Your task to perform on an android device: install app "PlayWell" Image 0: 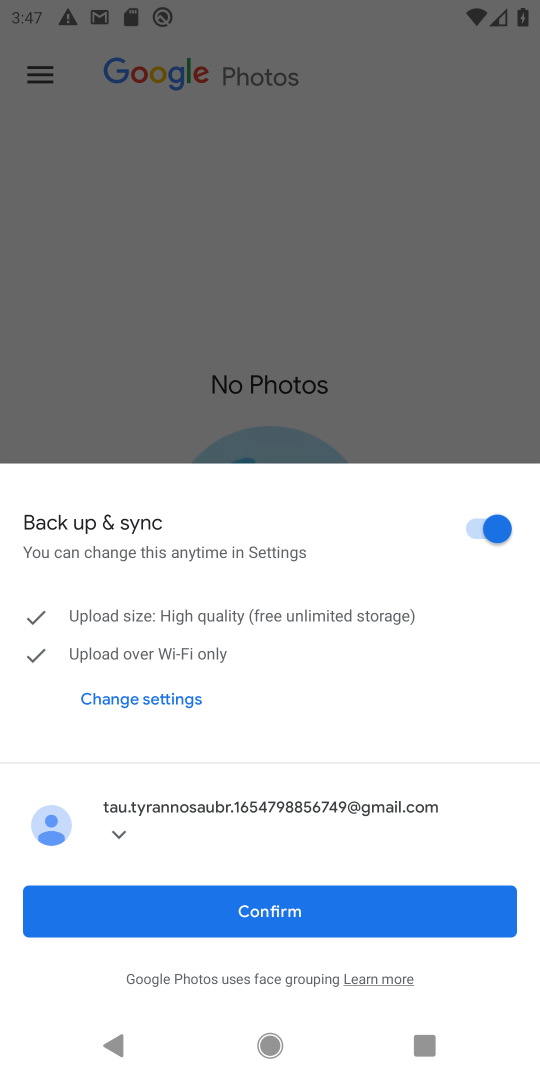
Step 0: press home button
Your task to perform on an android device: install app "PlayWell" Image 1: 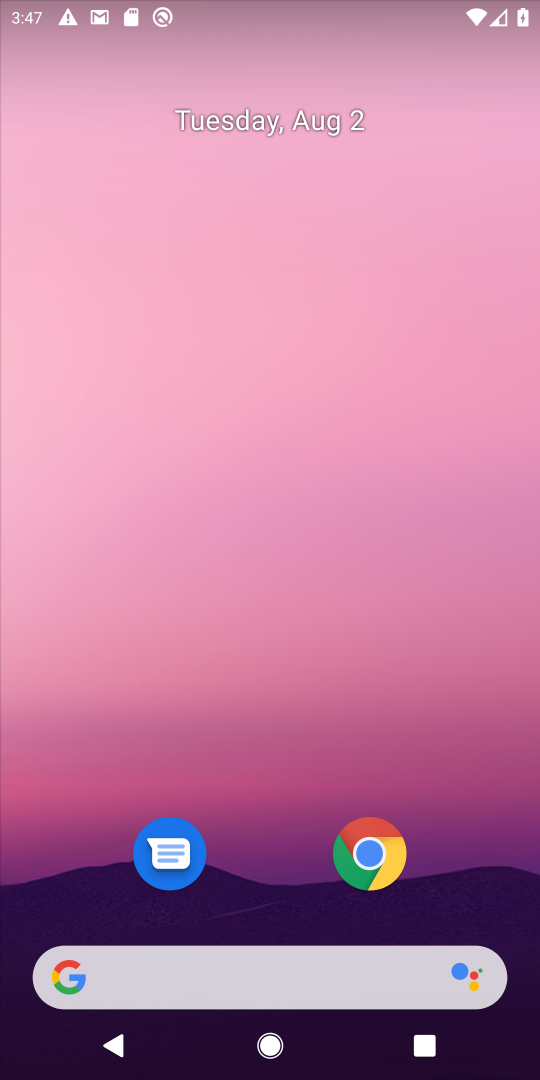
Step 1: drag from (312, 1079) to (326, 63)
Your task to perform on an android device: install app "PlayWell" Image 2: 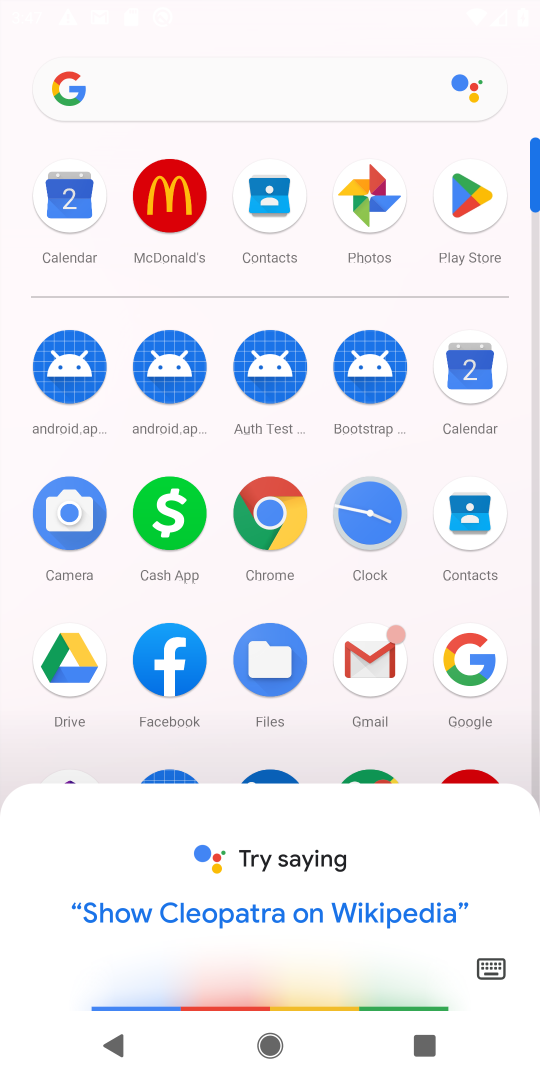
Step 2: click (475, 182)
Your task to perform on an android device: install app "PlayWell" Image 3: 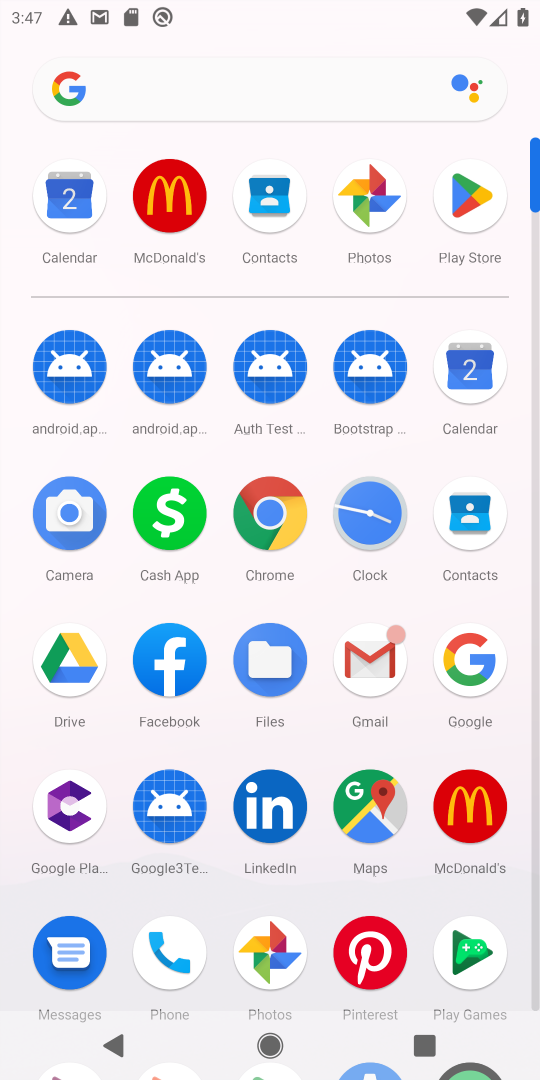
Step 3: click (469, 202)
Your task to perform on an android device: install app "PlayWell" Image 4: 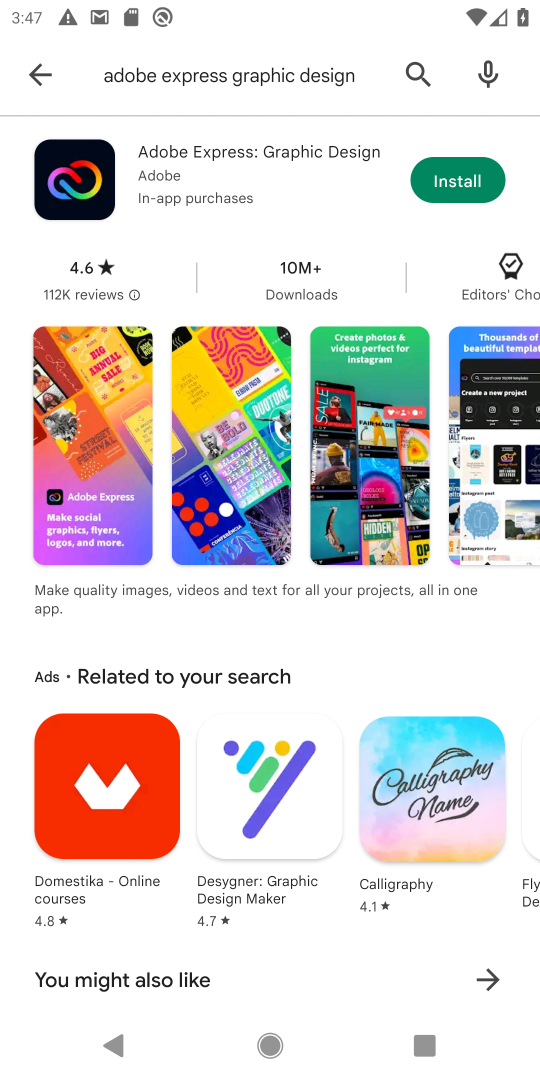
Step 4: click (415, 64)
Your task to perform on an android device: install app "PlayWell" Image 5: 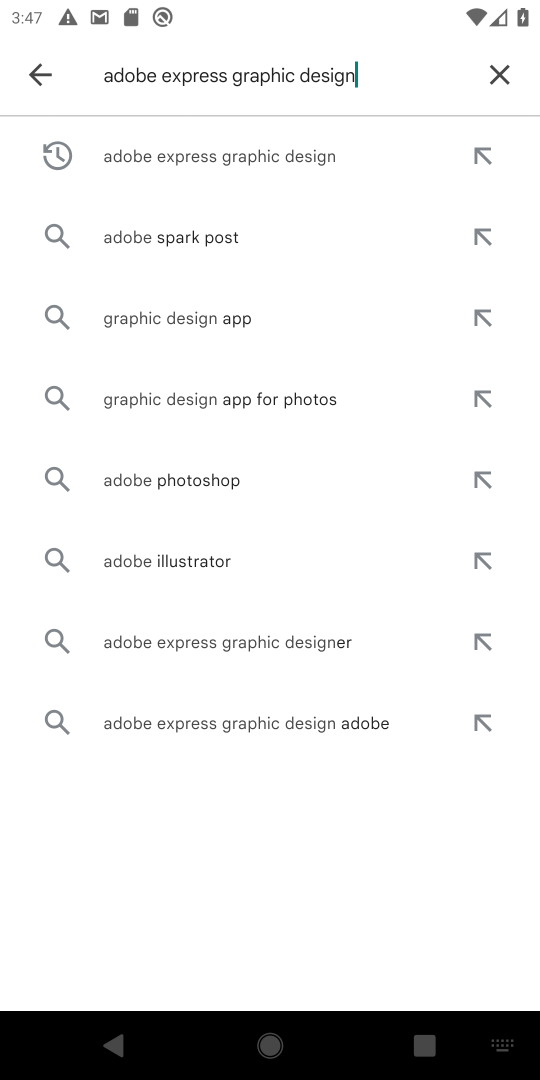
Step 5: click (496, 70)
Your task to perform on an android device: install app "PlayWell" Image 6: 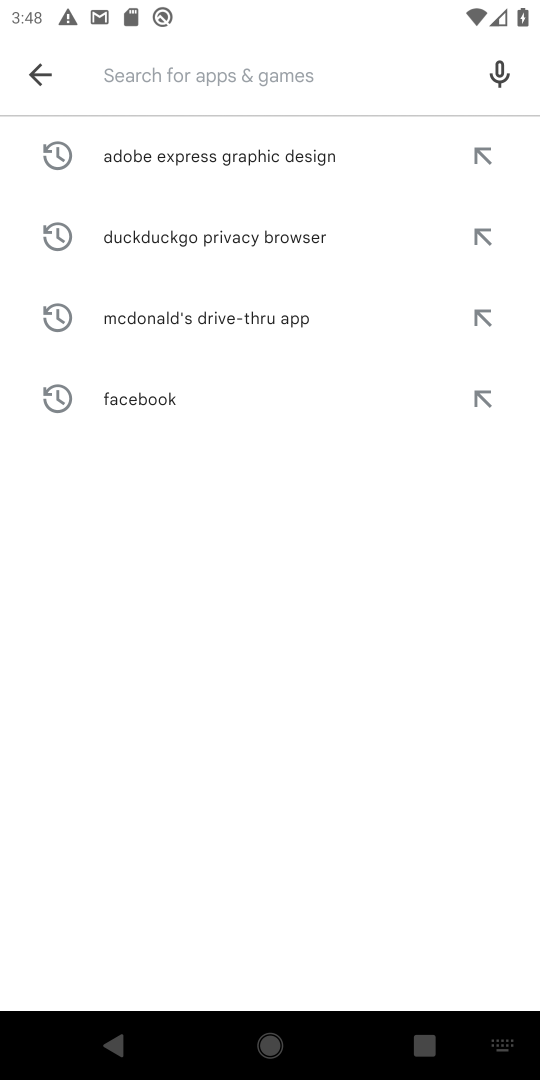
Step 6: type "PlayWell"
Your task to perform on an android device: install app "PlayWell" Image 7: 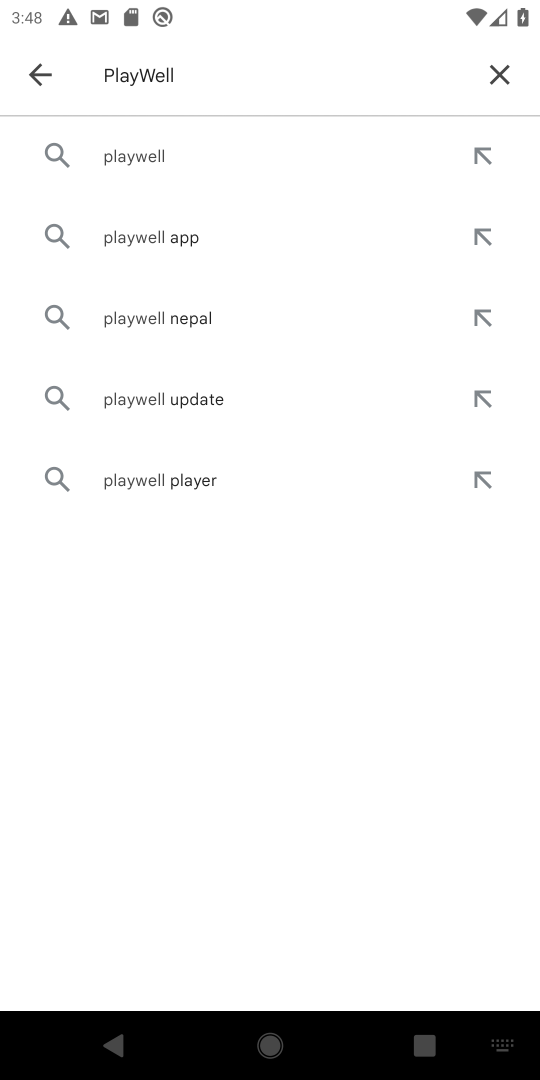
Step 7: click (135, 151)
Your task to perform on an android device: install app "PlayWell" Image 8: 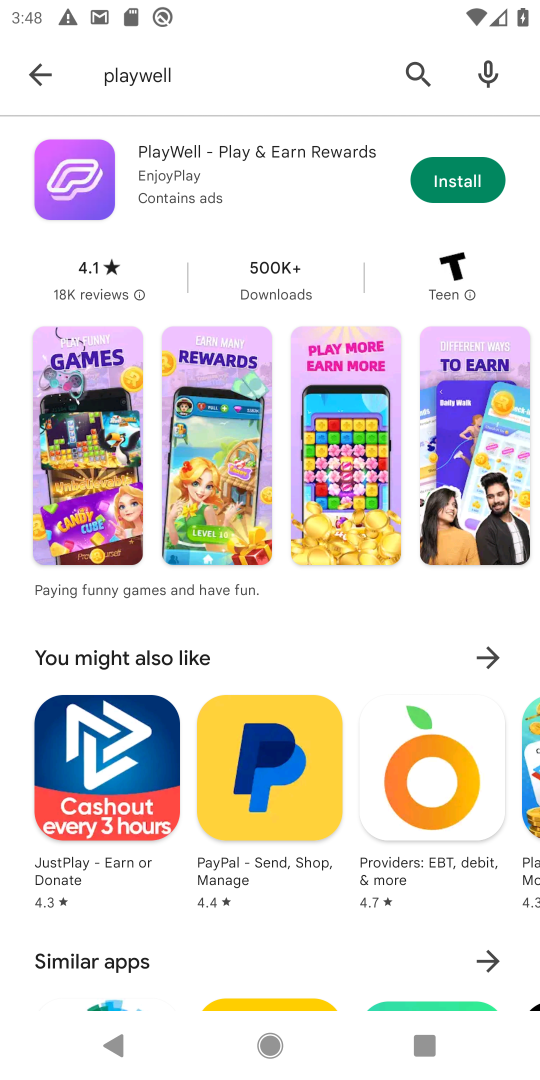
Step 8: click (462, 178)
Your task to perform on an android device: install app "PlayWell" Image 9: 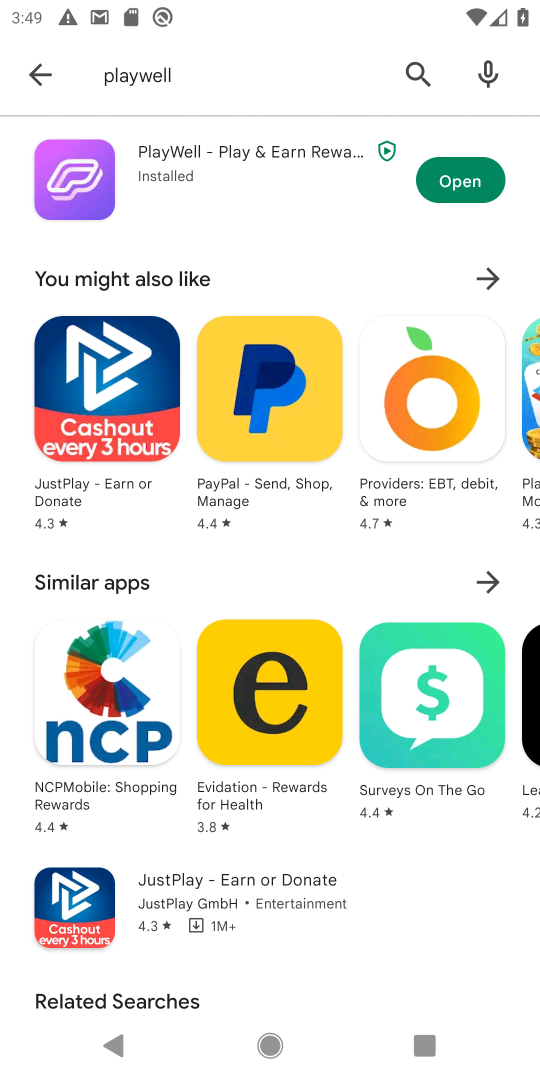
Step 9: task complete